Your task to perform on an android device: Open Chrome and go to the settings page Image 0: 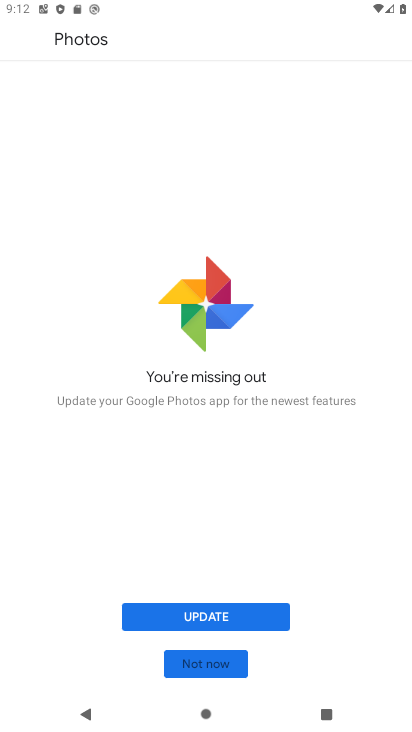
Step 0: press back button
Your task to perform on an android device: Open Chrome and go to the settings page Image 1: 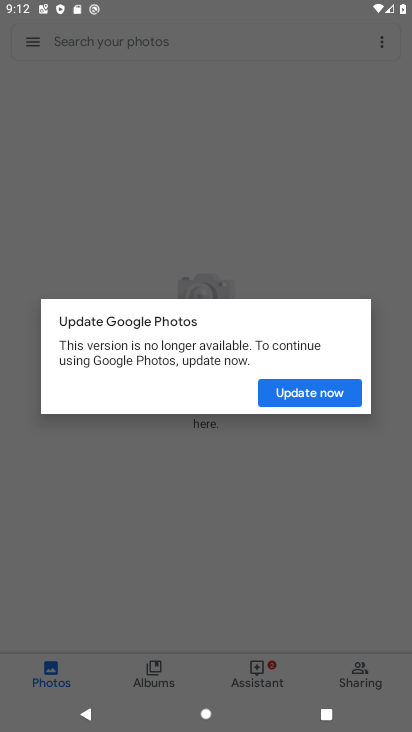
Step 1: press home button
Your task to perform on an android device: Open Chrome and go to the settings page Image 2: 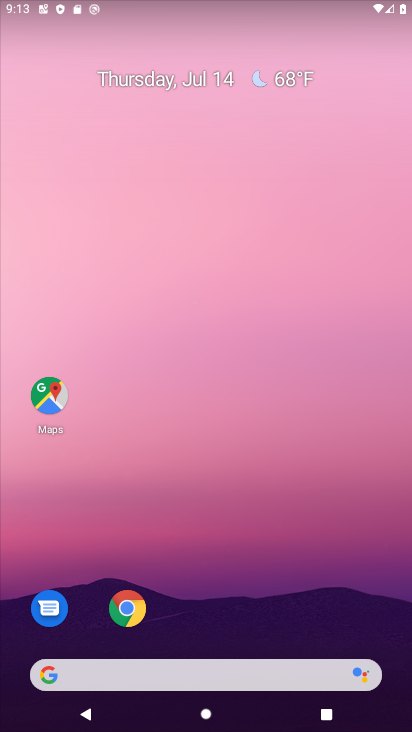
Step 2: click (133, 618)
Your task to perform on an android device: Open Chrome and go to the settings page Image 3: 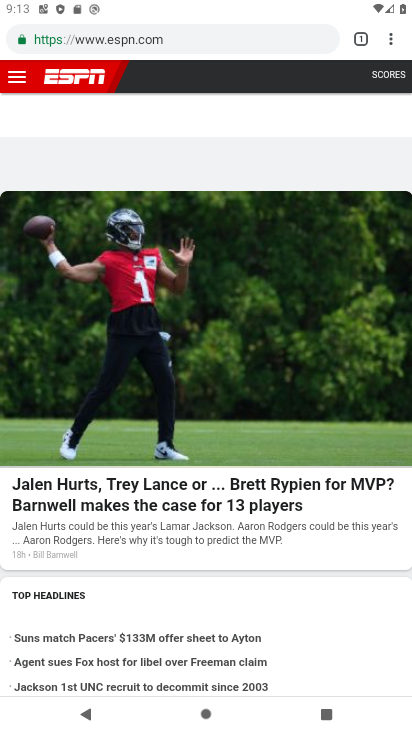
Step 3: task complete